Your task to perform on an android device: Go to location settings Image 0: 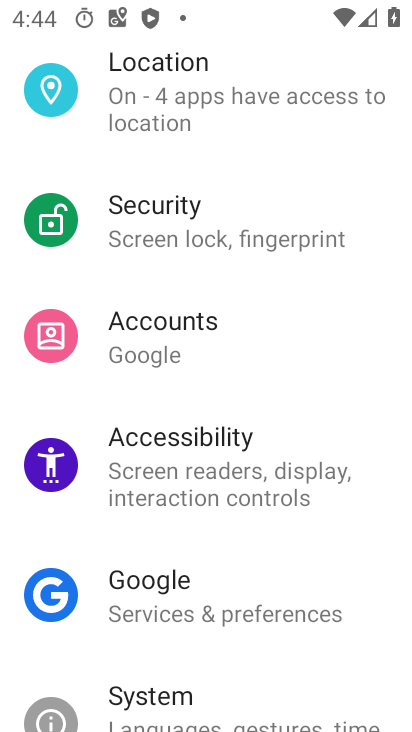
Step 0: click (193, 89)
Your task to perform on an android device: Go to location settings Image 1: 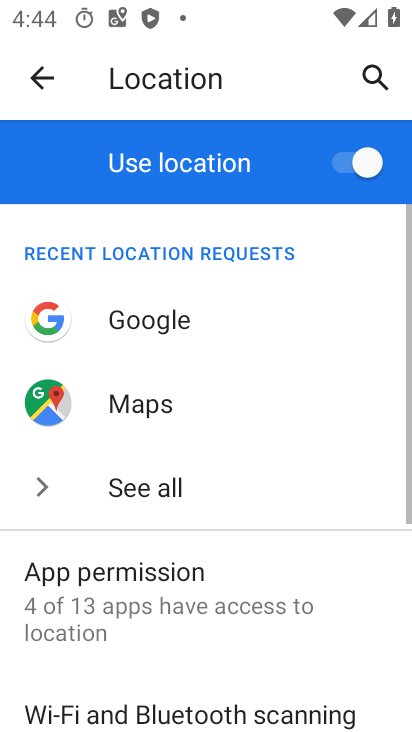
Step 1: task complete